Your task to perform on an android device: Open location settings Image 0: 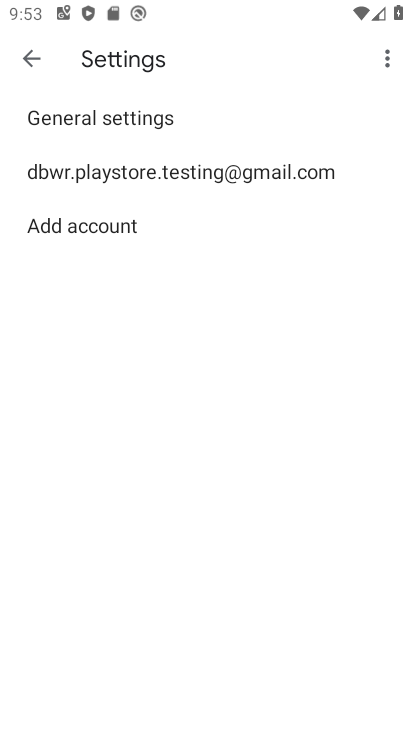
Step 0: press home button
Your task to perform on an android device: Open location settings Image 1: 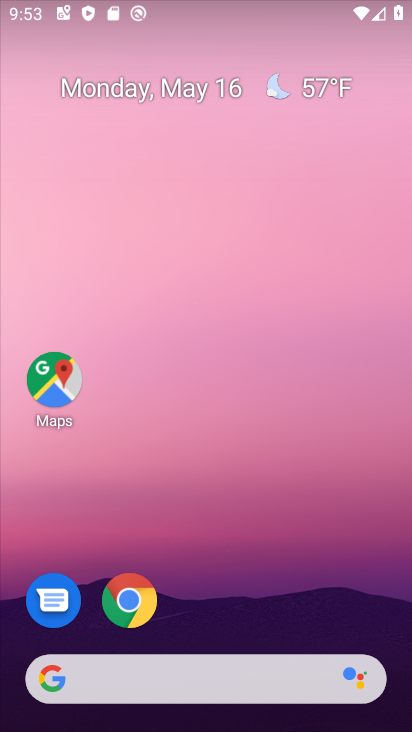
Step 1: drag from (363, 615) to (332, 165)
Your task to perform on an android device: Open location settings Image 2: 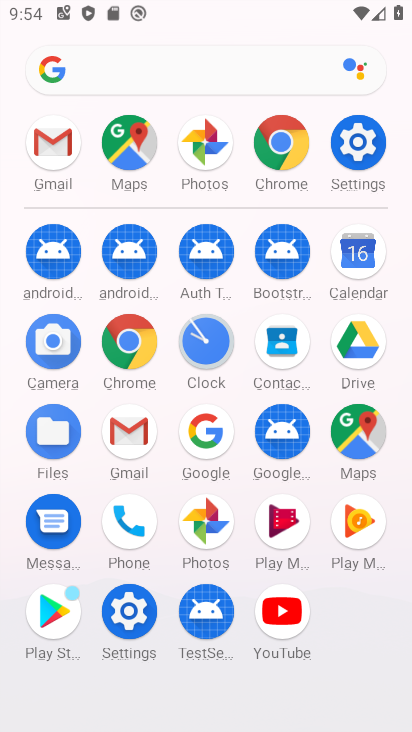
Step 2: click (148, 609)
Your task to perform on an android device: Open location settings Image 3: 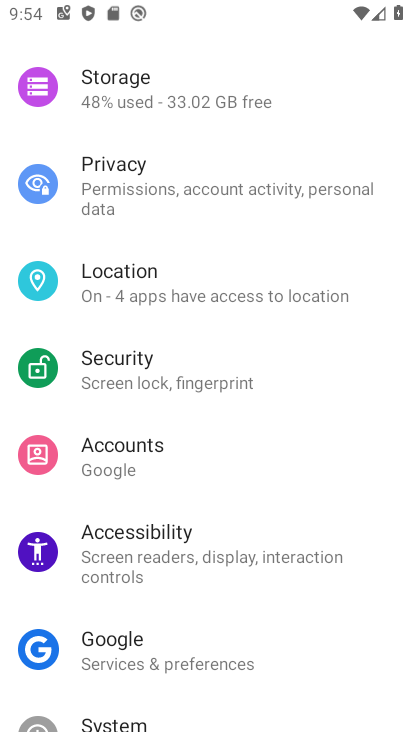
Step 3: click (231, 291)
Your task to perform on an android device: Open location settings Image 4: 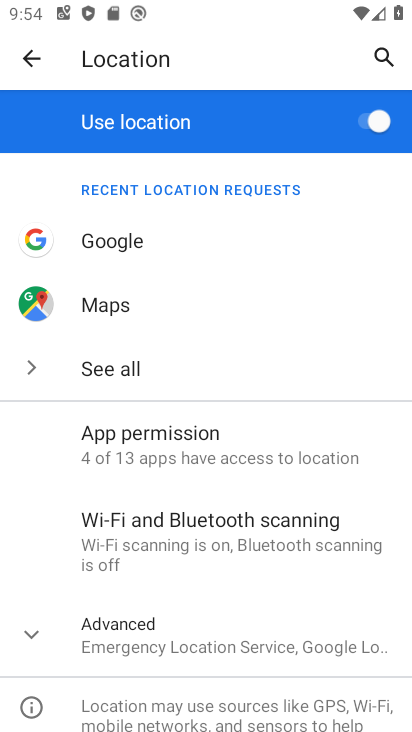
Step 4: task complete